Your task to perform on an android device: toggle translation in the chrome app Image 0: 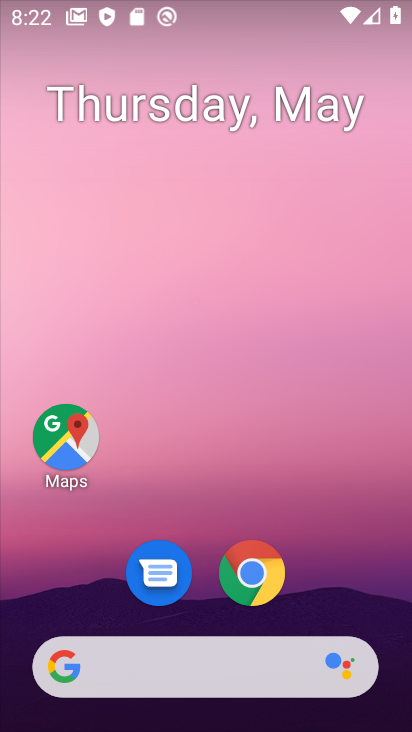
Step 0: drag from (327, 559) to (348, 53)
Your task to perform on an android device: toggle translation in the chrome app Image 1: 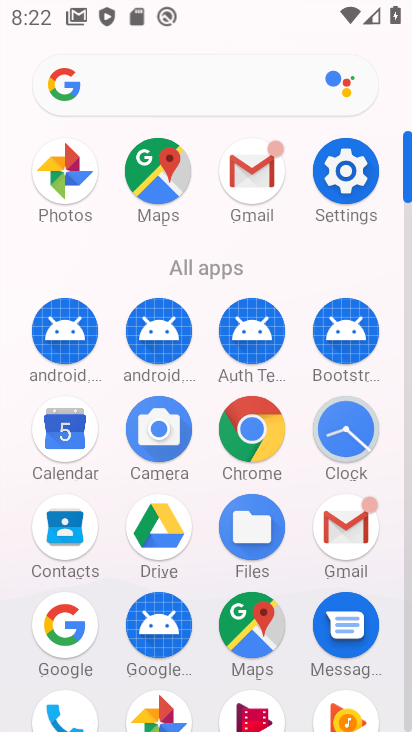
Step 1: click (264, 441)
Your task to perform on an android device: toggle translation in the chrome app Image 2: 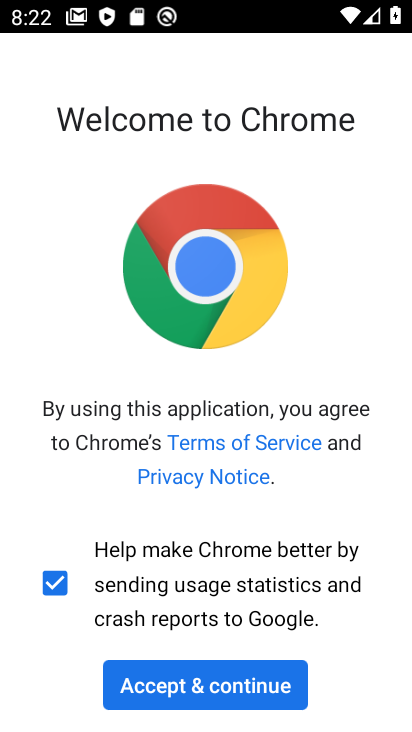
Step 2: click (231, 692)
Your task to perform on an android device: toggle translation in the chrome app Image 3: 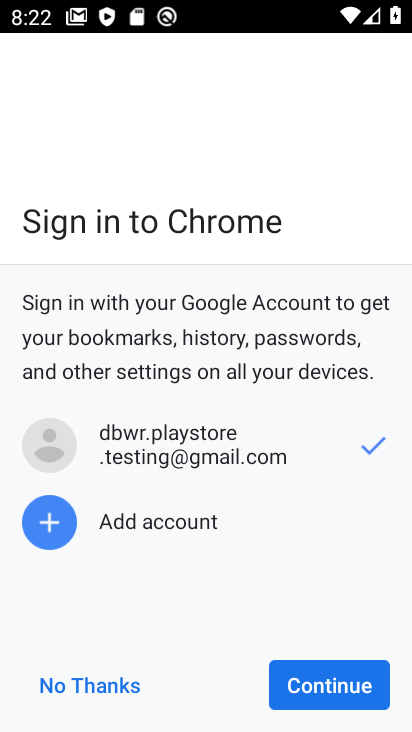
Step 3: click (369, 690)
Your task to perform on an android device: toggle translation in the chrome app Image 4: 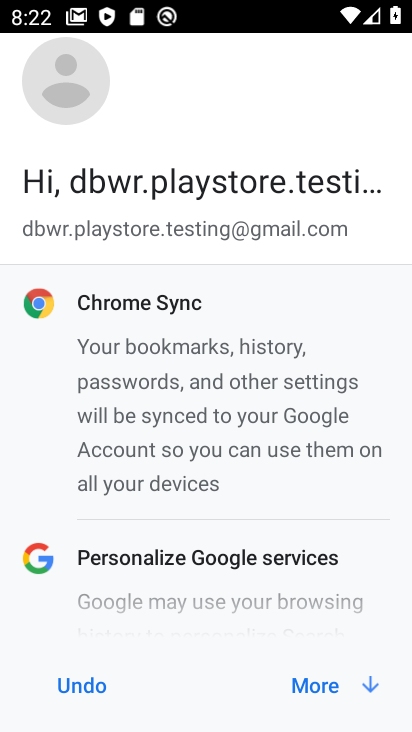
Step 4: click (325, 693)
Your task to perform on an android device: toggle translation in the chrome app Image 5: 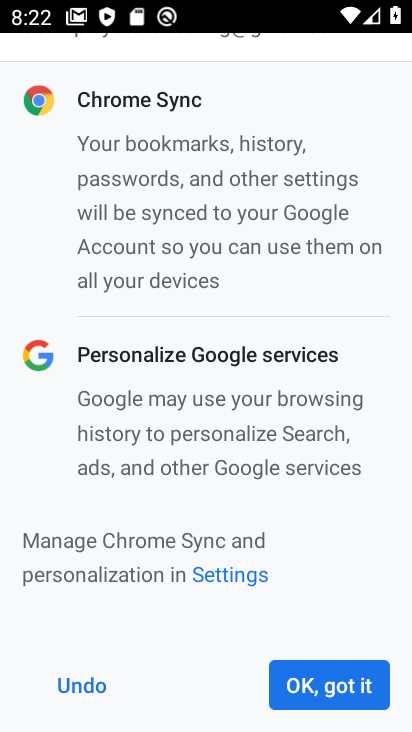
Step 5: click (325, 693)
Your task to perform on an android device: toggle translation in the chrome app Image 6: 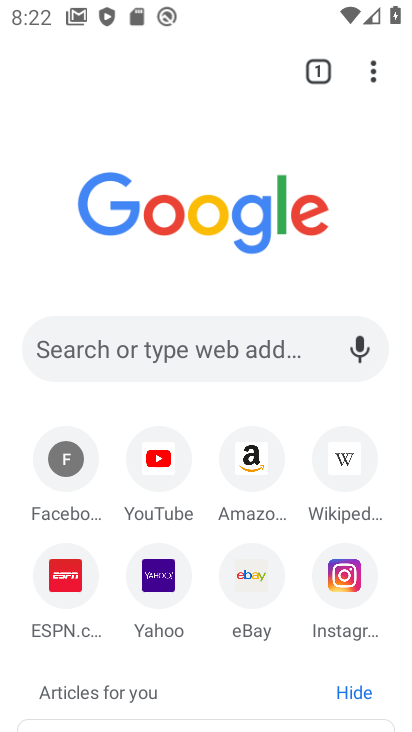
Step 6: click (370, 76)
Your task to perform on an android device: toggle translation in the chrome app Image 7: 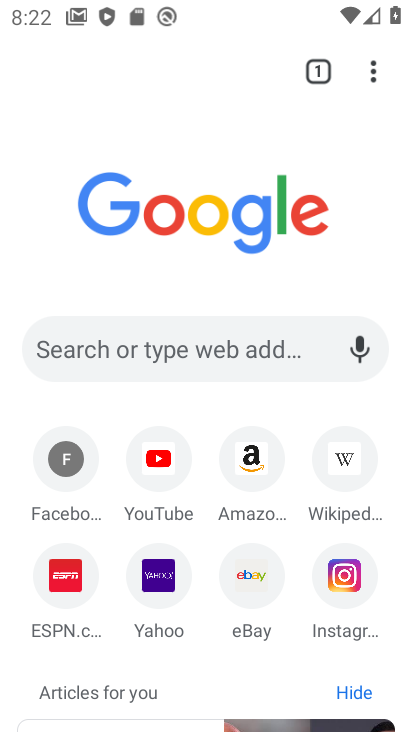
Step 7: drag from (370, 76) to (177, 609)
Your task to perform on an android device: toggle translation in the chrome app Image 8: 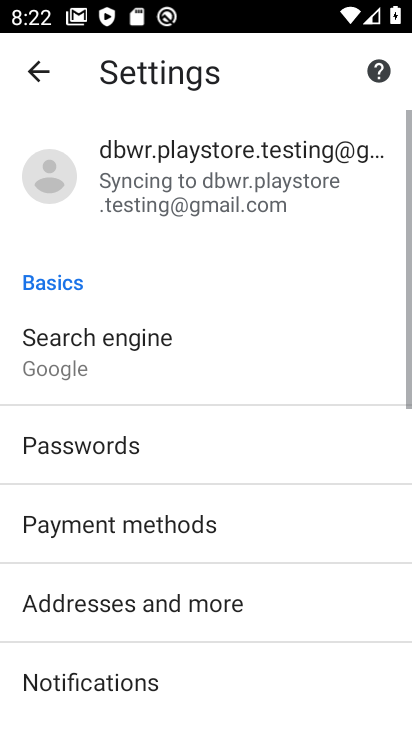
Step 8: drag from (177, 596) to (206, 278)
Your task to perform on an android device: toggle translation in the chrome app Image 9: 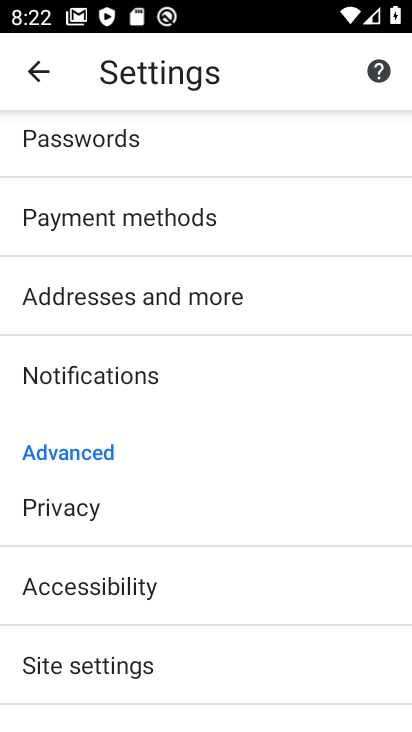
Step 9: drag from (180, 678) to (194, 361)
Your task to perform on an android device: toggle translation in the chrome app Image 10: 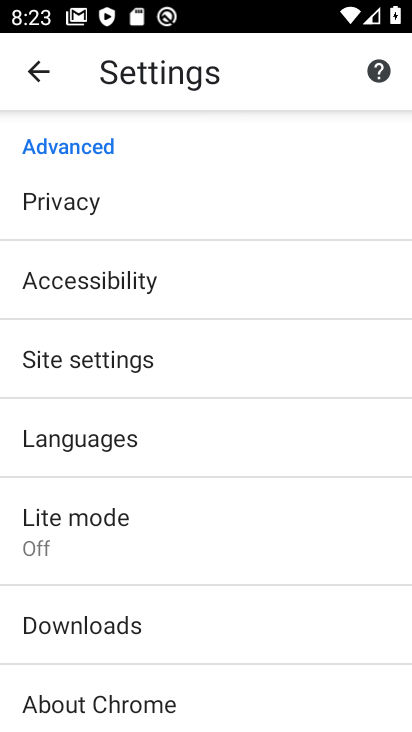
Step 10: click (122, 446)
Your task to perform on an android device: toggle translation in the chrome app Image 11: 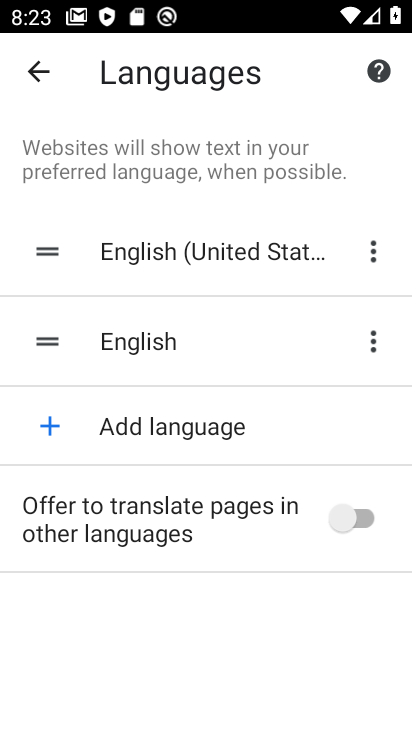
Step 11: click (350, 515)
Your task to perform on an android device: toggle translation in the chrome app Image 12: 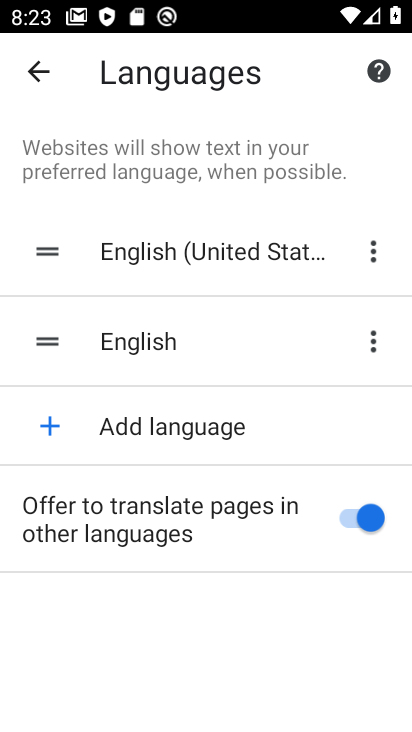
Step 12: task complete